Your task to perform on an android device: change text size in settings app Image 0: 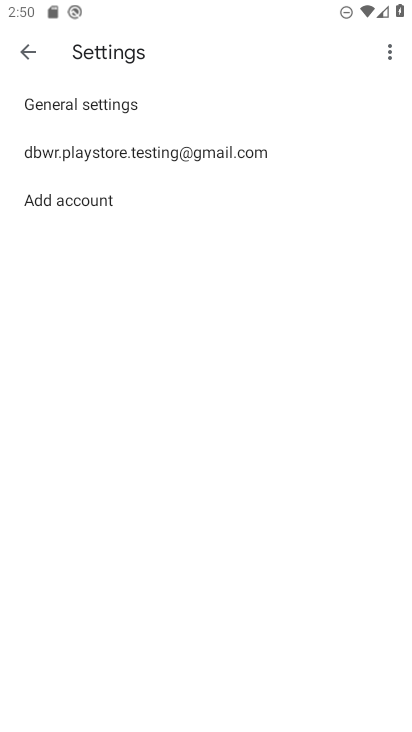
Step 0: click (26, 48)
Your task to perform on an android device: change text size in settings app Image 1: 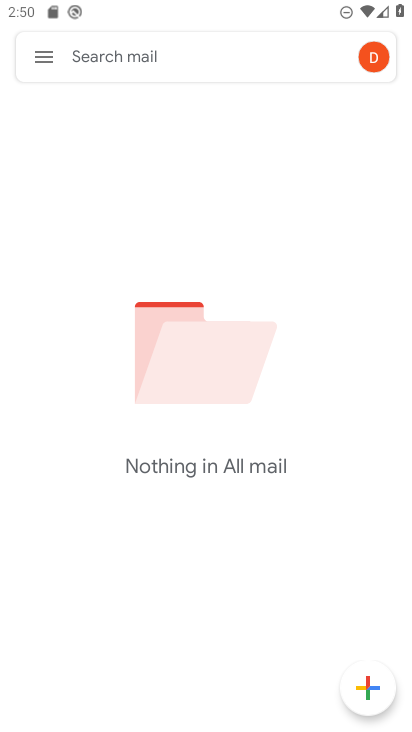
Step 1: press back button
Your task to perform on an android device: change text size in settings app Image 2: 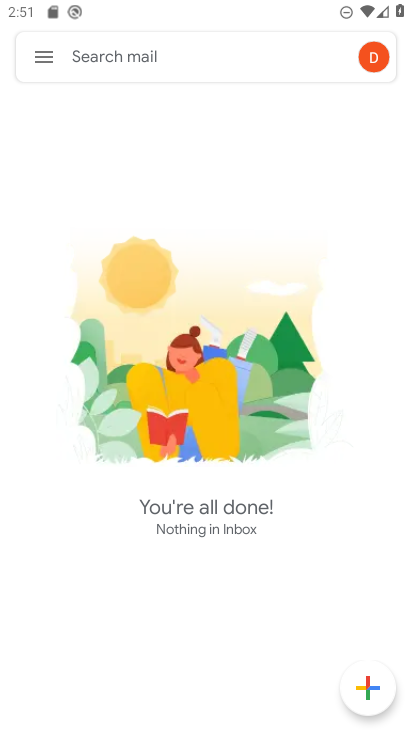
Step 2: press home button
Your task to perform on an android device: change text size in settings app Image 3: 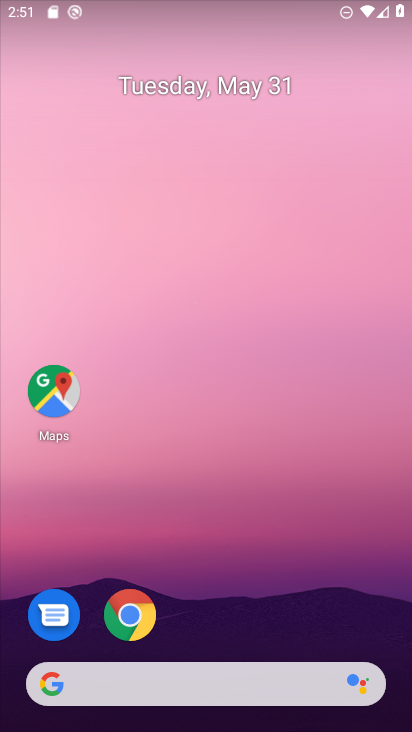
Step 3: drag from (199, 664) to (140, 92)
Your task to perform on an android device: change text size in settings app Image 4: 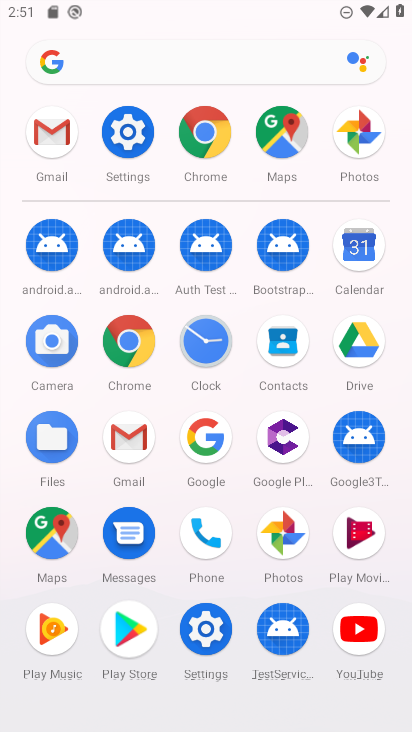
Step 4: click (198, 625)
Your task to perform on an android device: change text size in settings app Image 5: 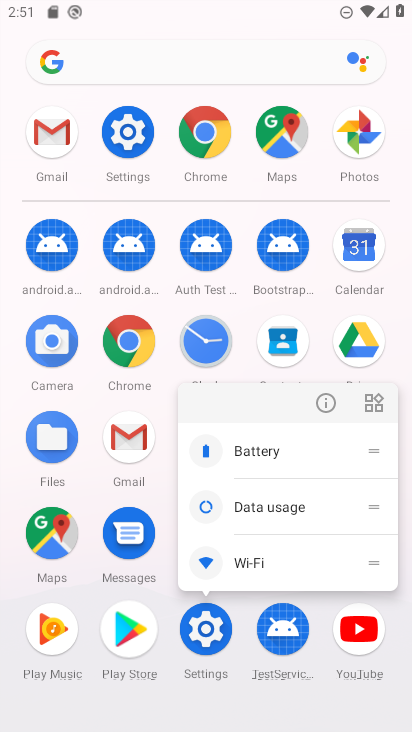
Step 5: click (197, 635)
Your task to perform on an android device: change text size in settings app Image 6: 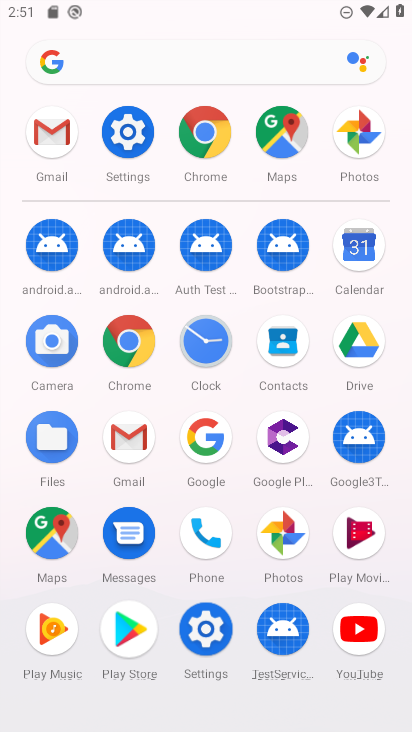
Step 6: click (197, 635)
Your task to perform on an android device: change text size in settings app Image 7: 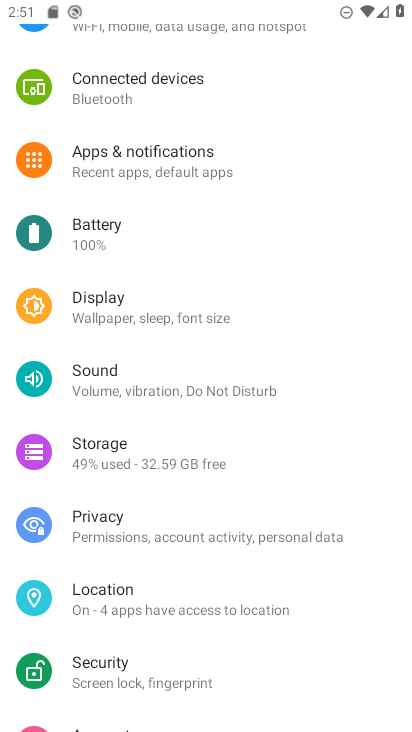
Step 7: click (97, 313)
Your task to perform on an android device: change text size in settings app Image 8: 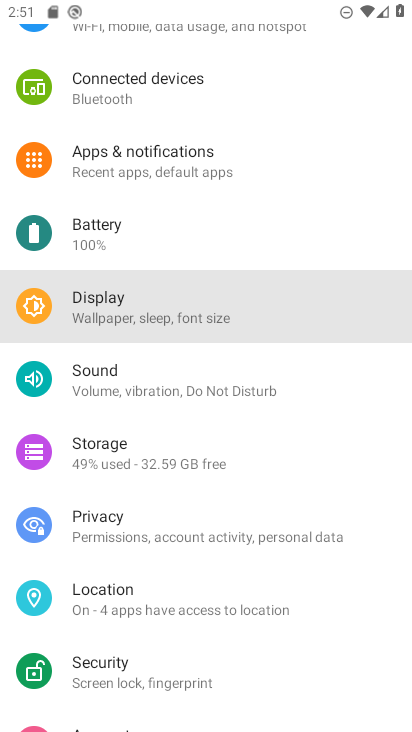
Step 8: click (97, 312)
Your task to perform on an android device: change text size in settings app Image 9: 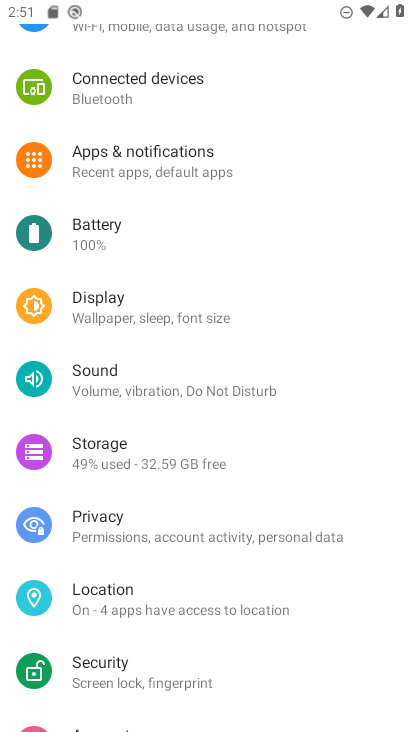
Step 9: click (97, 312)
Your task to perform on an android device: change text size in settings app Image 10: 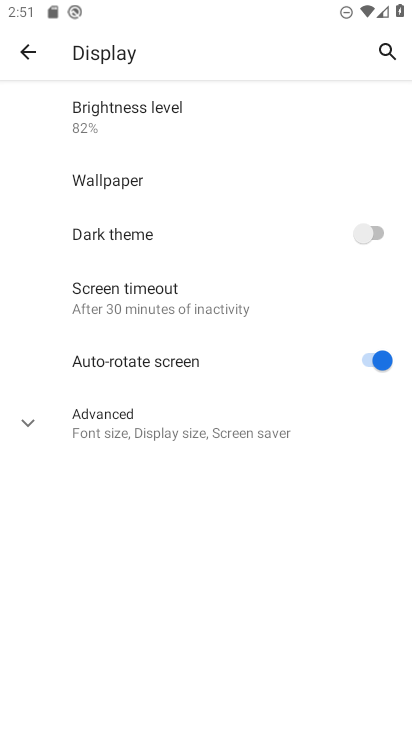
Step 10: click (106, 410)
Your task to perform on an android device: change text size in settings app Image 11: 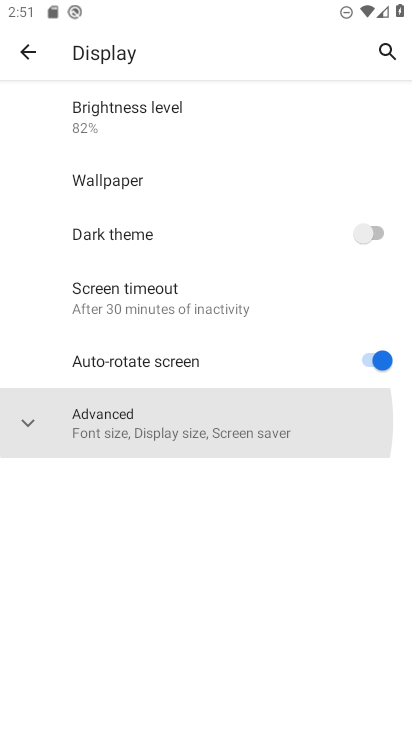
Step 11: click (106, 410)
Your task to perform on an android device: change text size in settings app Image 12: 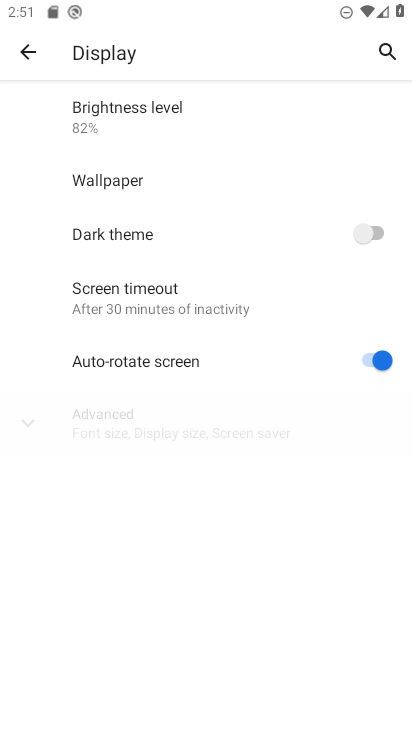
Step 12: click (106, 410)
Your task to perform on an android device: change text size in settings app Image 13: 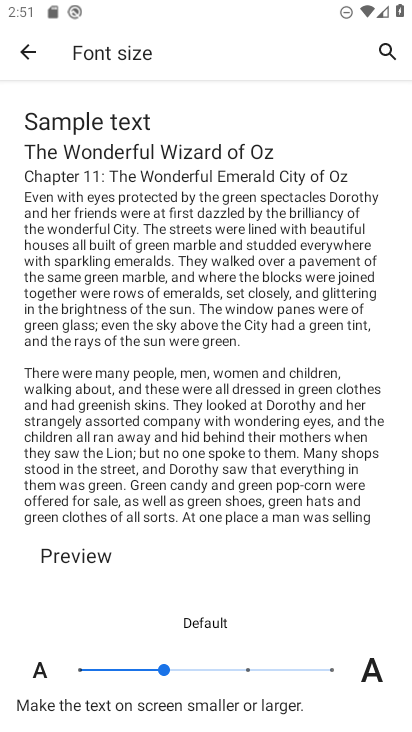
Step 13: click (247, 672)
Your task to perform on an android device: change text size in settings app Image 14: 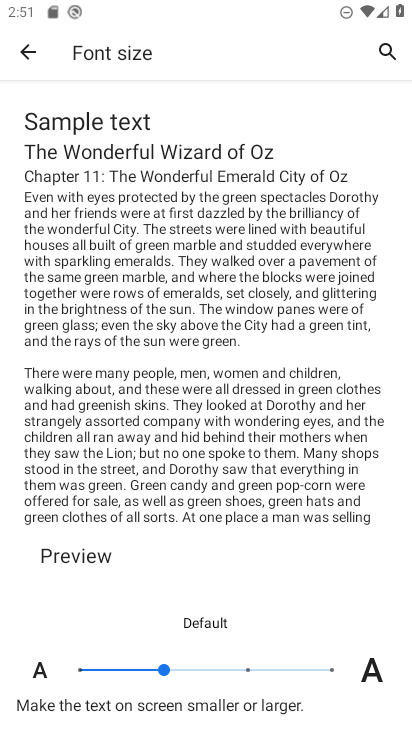
Step 14: click (247, 672)
Your task to perform on an android device: change text size in settings app Image 15: 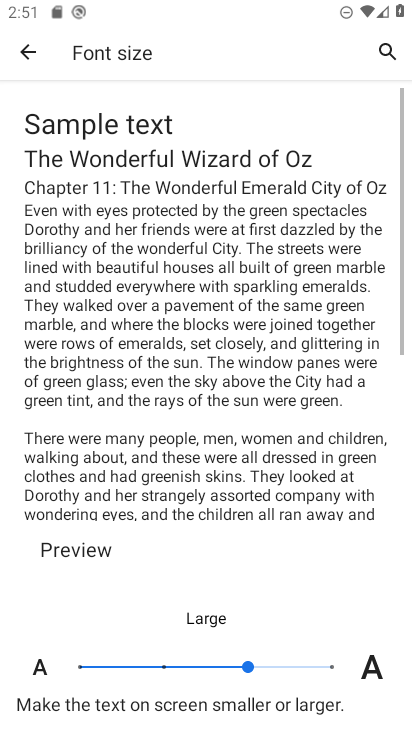
Step 15: task complete